Your task to perform on an android device: change notification settings in the gmail app Image 0: 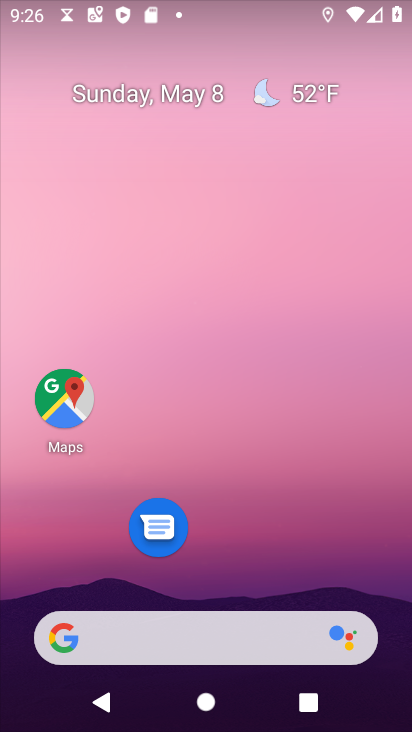
Step 0: drag from (248, 539) to (217, 57)
Your task to perform on an android device: change notification settings in the gmail app Image 1: 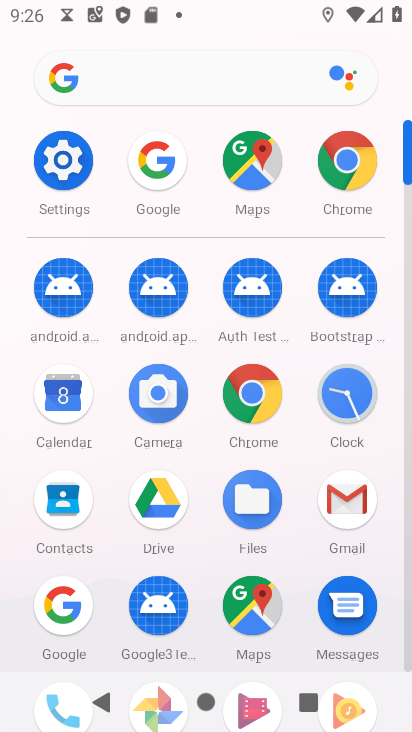
Step 1: drag from (200, 558) to (186, 384)
Your task to perform on an android device: change notification settings in the gmail app Image 2: 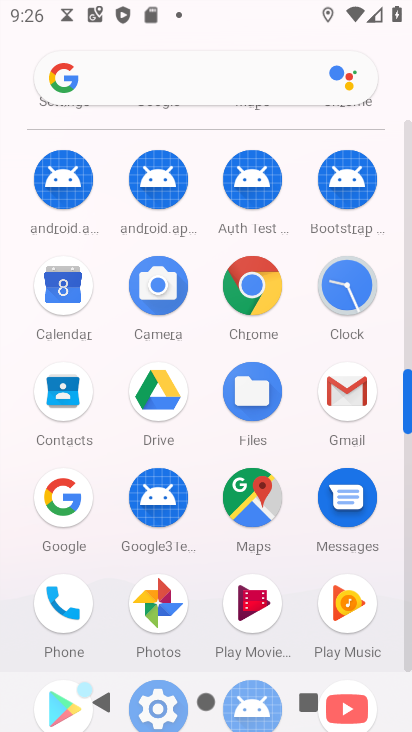
Step 2: drag from (209, 490) to (218, 341)
Your task to perform on an android device: change notification settings in the gmail app Image 3: 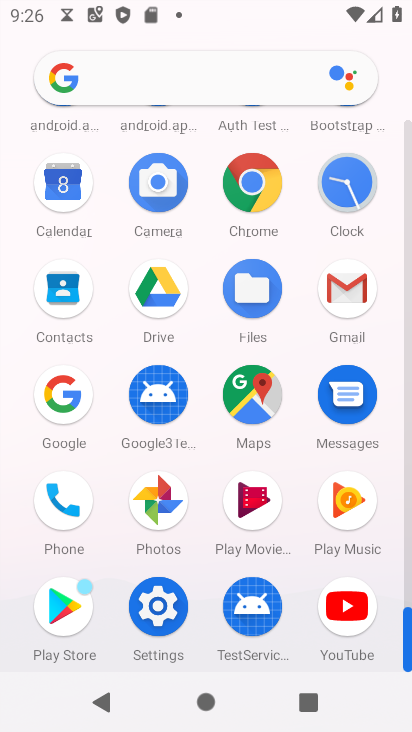
Step 3: click (343, 289)
Your task to perform on an android device: change notification settings in the gmail app Image 4: 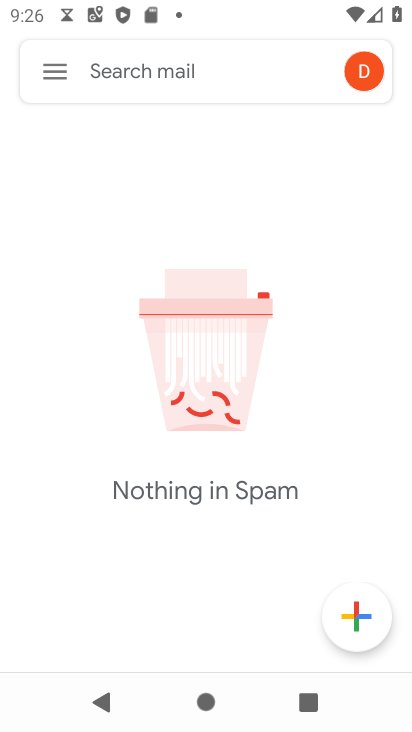
Step 4: click (56, 74)
Your task to perform on an android device: change notification settings in the gmail app Image 5: 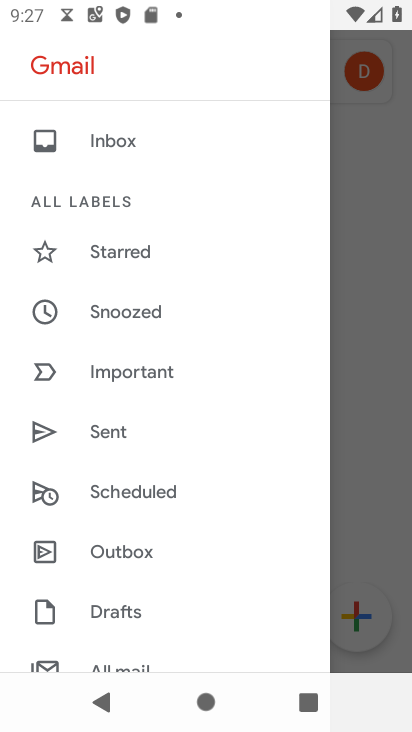
Step 5: drag from (159, 524) to (161, 400)
Your task to perform on an android device: change notification settings in the gmail app Image 6: 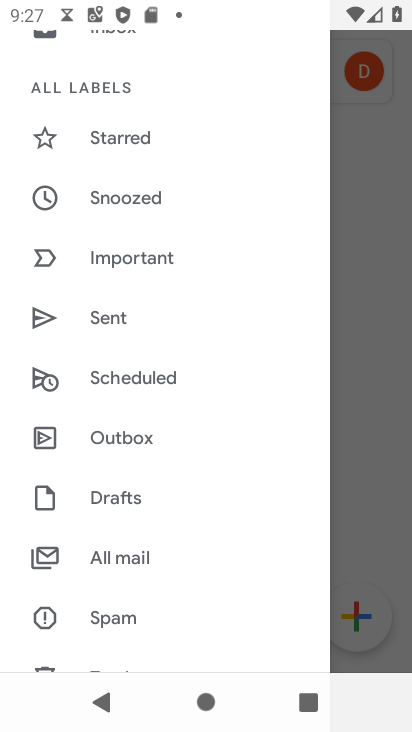
Step 6: drag from (139, 593) to (146, 487)
Your task to perform on an android device: change notification settings in the gmail app Image 7: 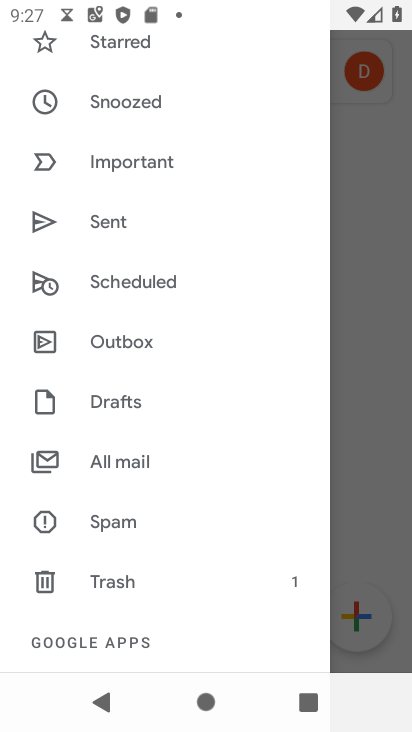
Step 7: drag from (138, 573) to (177, 480)
Your task to perform on an android device: change notification settings in the gmail app Image 8: 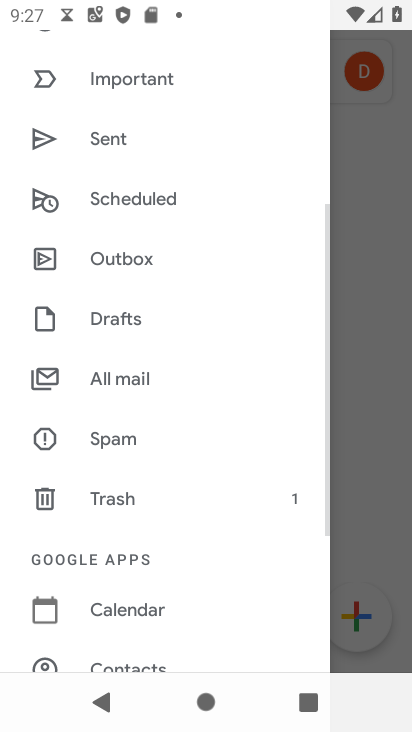
Step 8: drag from (171, 566) to (181, 483)
Your task to perform on an android device: change notification settings in the gmail app Image 9: 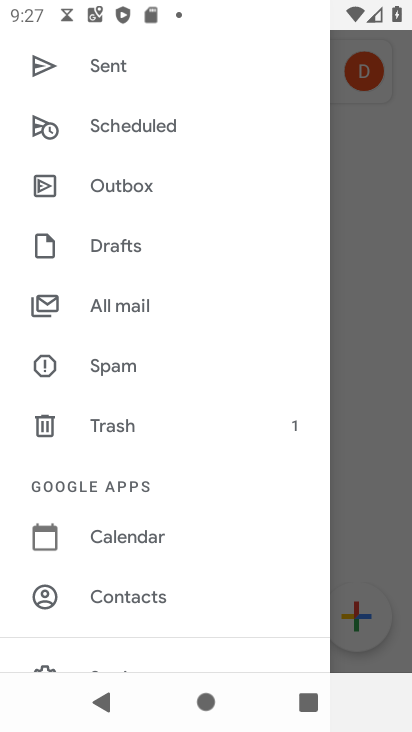
Step 9: drag from (164, 613) to (186, 507)
Your task to perform on an android device: change notification settings in the gmail app Image 10: 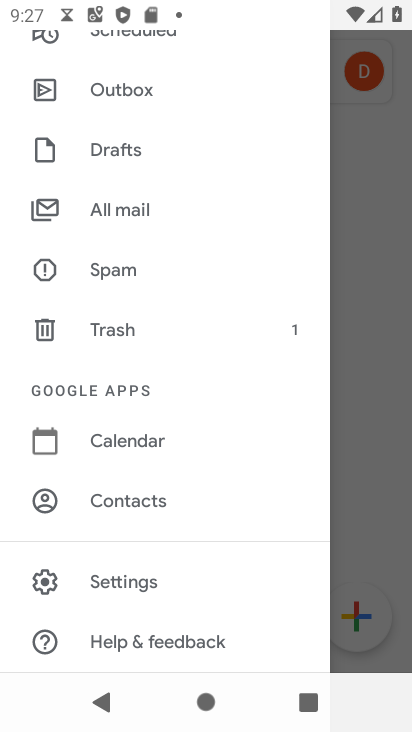
Step 10: click (126, 578)
Your task to perform on an android device: change notification settings in the gmail app Image 11: 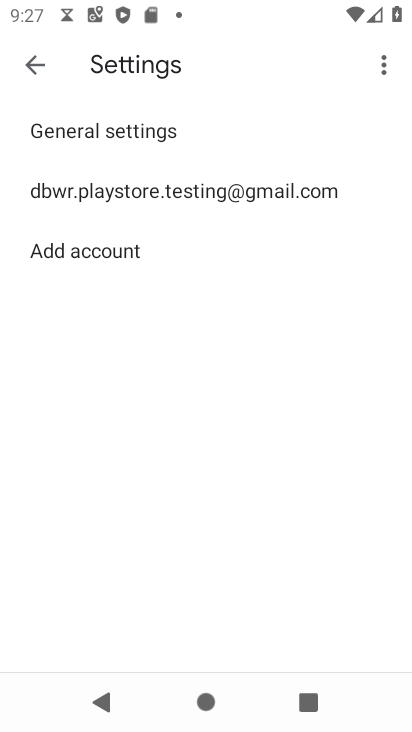
Step 11: click (239, 189)
Your task to perform on an android device: change notification settings in the gmail app Image 12: 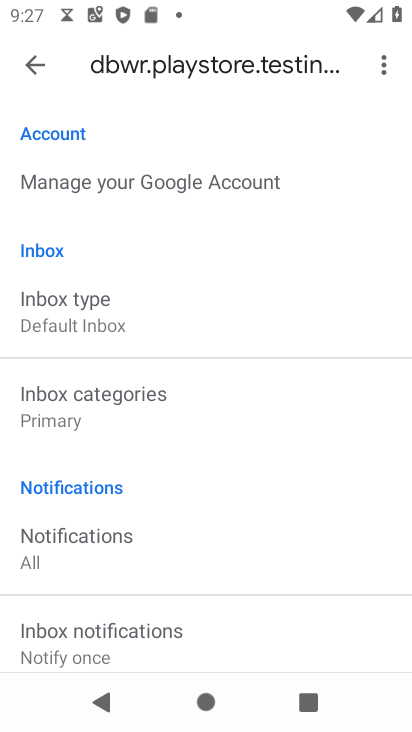
Step 12: drag from (185, 463) to (192, 361)
Your task to perform on an android device: change notification settings in the gmail app Image 13: 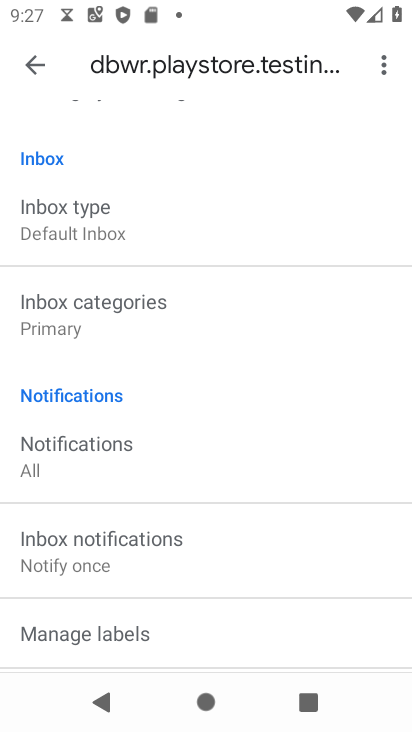
Step 13: drag from (157, 472) to (196, 380)
Your task to perform on an android device: change notification settings in the gmail app Image 14: 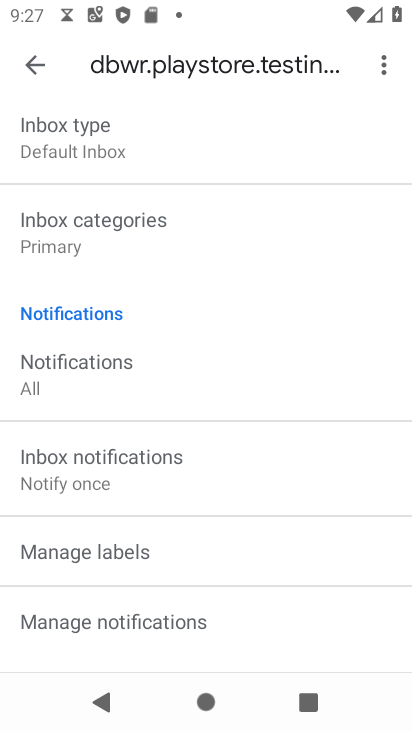
Step 14: drag from (182, 540) to (209, 439)
Your task to perform on an android device: change notification settings in the gmail app Image 15: 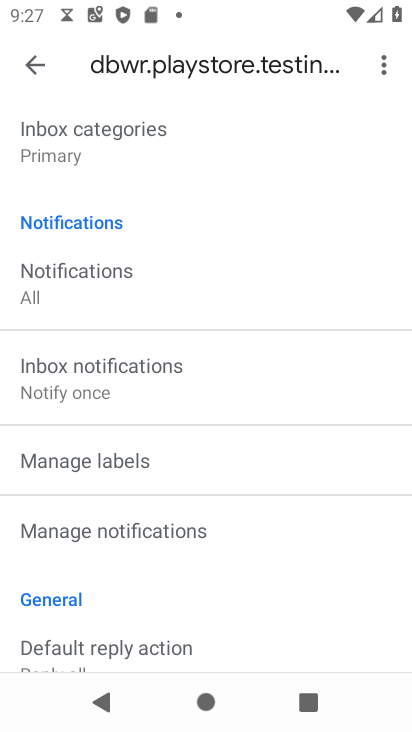
Step 15: click (161, 526)
Your task to perform on an android device: change notification settings in the gmail app Image 16: 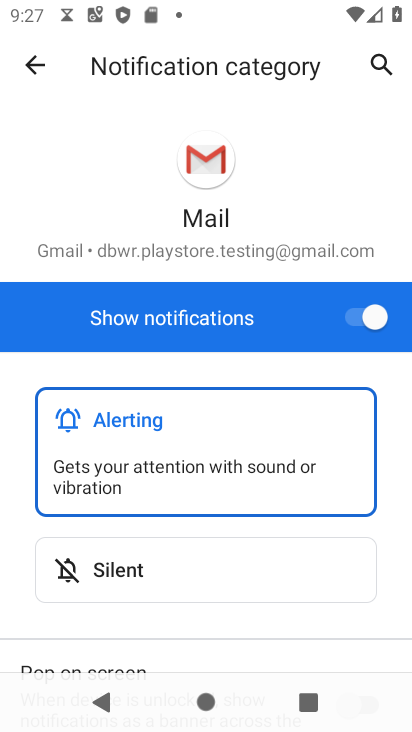
Step 16: click (376, 323)
Your task to perform on an android device: change notification settings in the gmail app Image 17: 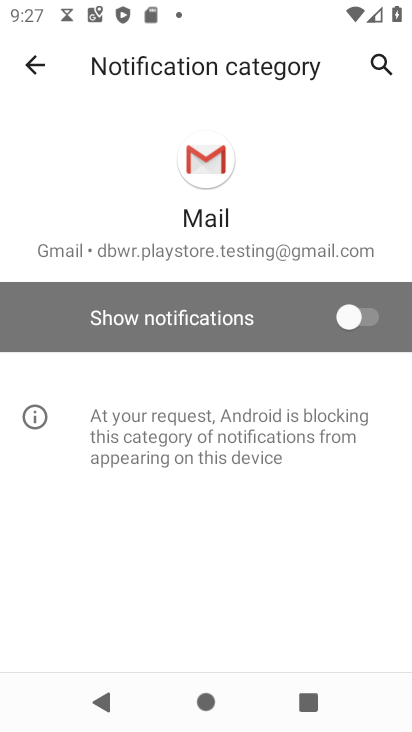
Step 17: task complete